Your task to perform on an android device: Open wifi settings Image 0: 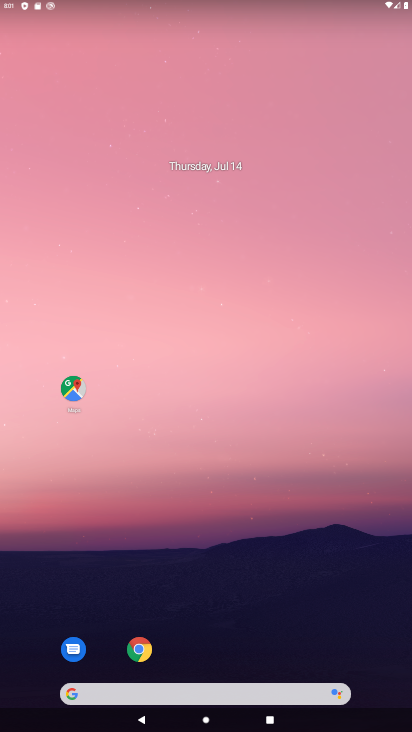
Step 0: drag from (178, 464) to (189, 297)
Your task to perform on an android device: Open wifi settings Image 1: 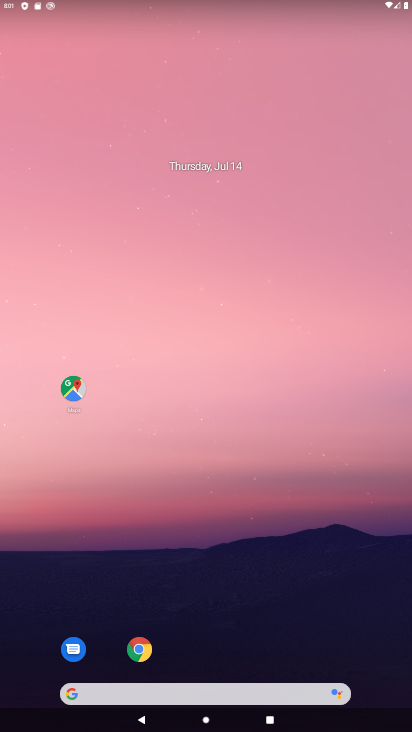
Step 1: drag from (230, 681) to (253, 189)
Your task to perform on an android device: Open wifi settings Image 2: 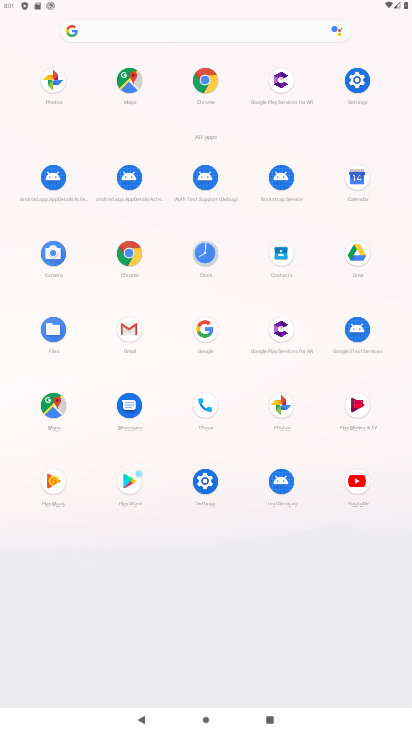
Step 2: click (347, 84)
Your task to perform on an android device: Open wifi settings Image 3: 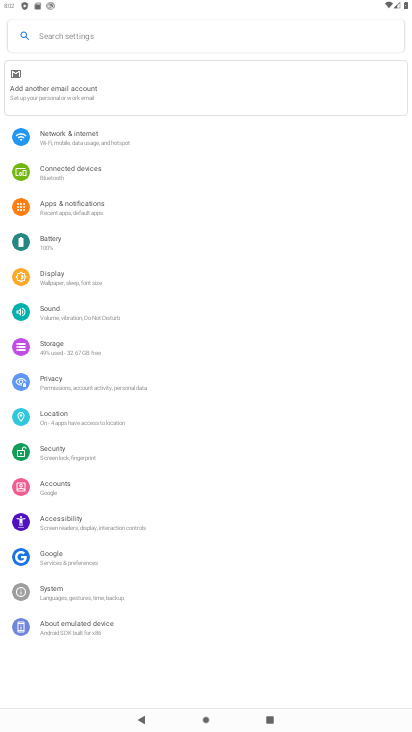
Step 3: click (54, 143)
Your task to perform on an android device: Open wifi settings Image 4: 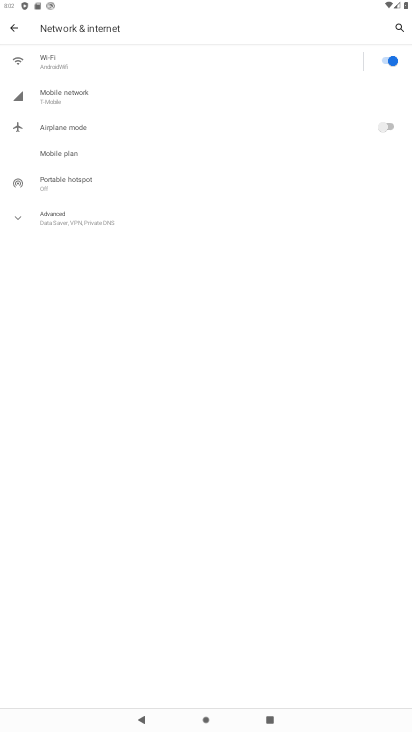
Step 4: click (68, 220)
Your task to perform on an android device: Open wifi settings Image 5: 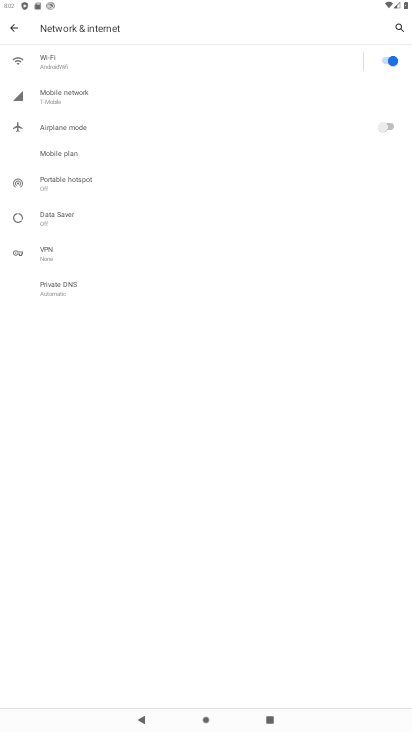
Step 5: click (46, 59)
Your task to perform on an android device: Open wifi settings Image 6: 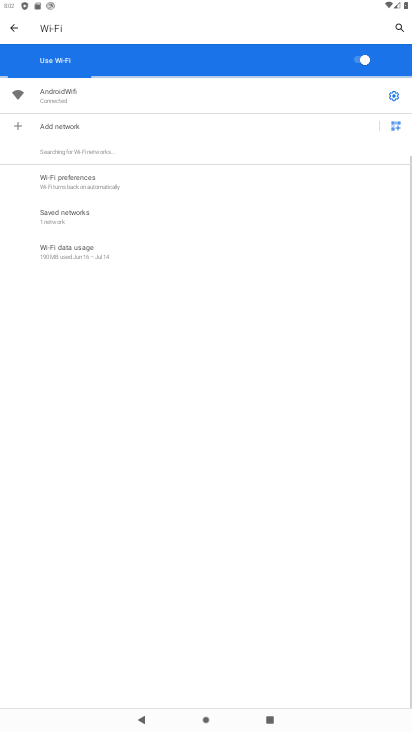
Step 6: click (393, 94)
Your task to perform on an android device: Open wifi settings Image 7: 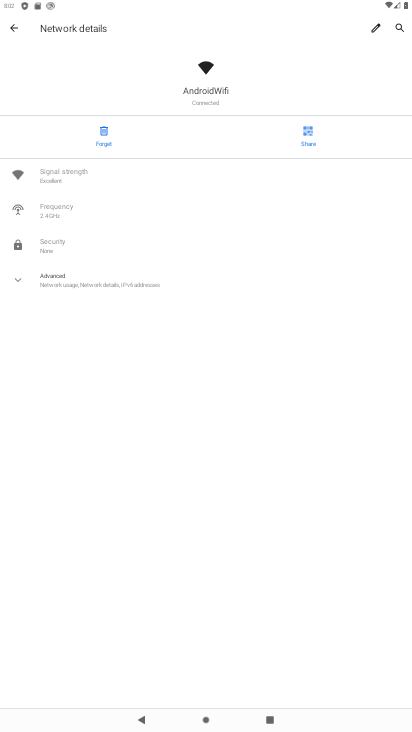
Step 7: click (104, 282)
Your task to perform on an android device: Open wifi settings Image 8: 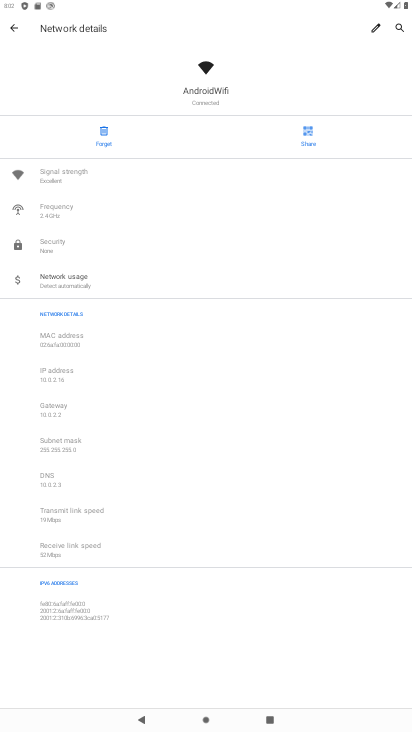
Step 8: task complete